Your task to perform on an android device: move an email to a new category in the gmail app Image 0: 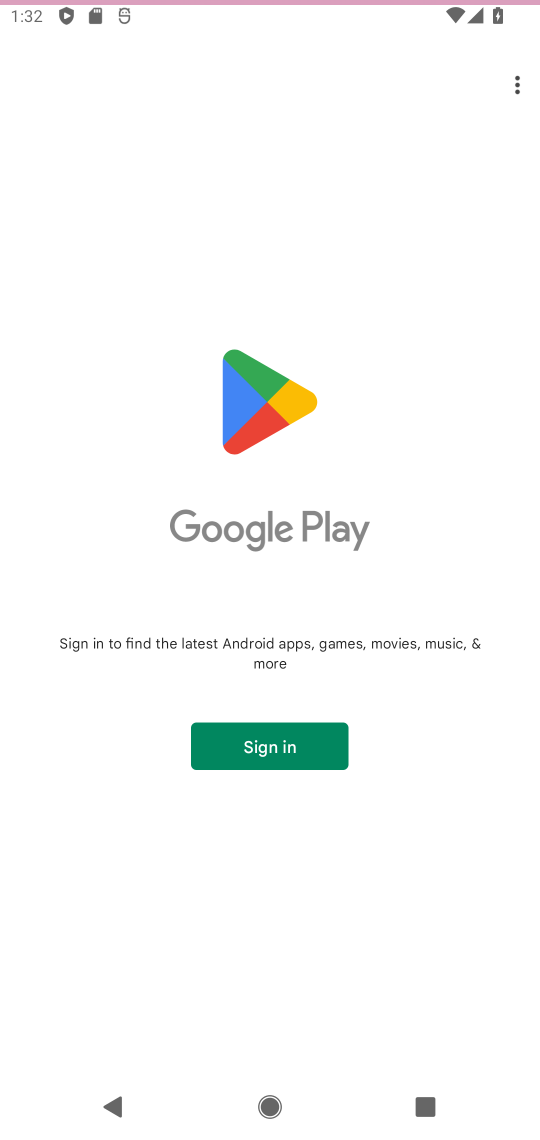
Step 0: press home button
Your task to perform on an android device: move an email to a new category in the gmail app Image 1: 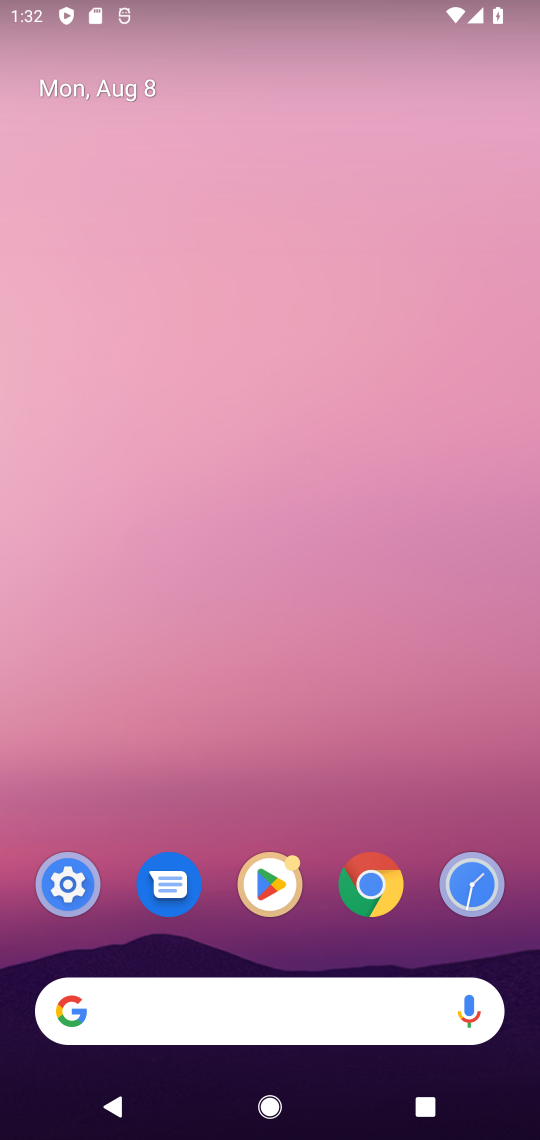
Step 1: click (266, 876)
Your task to perform on an android device: move an email to a new category in the gmail app Image 2: 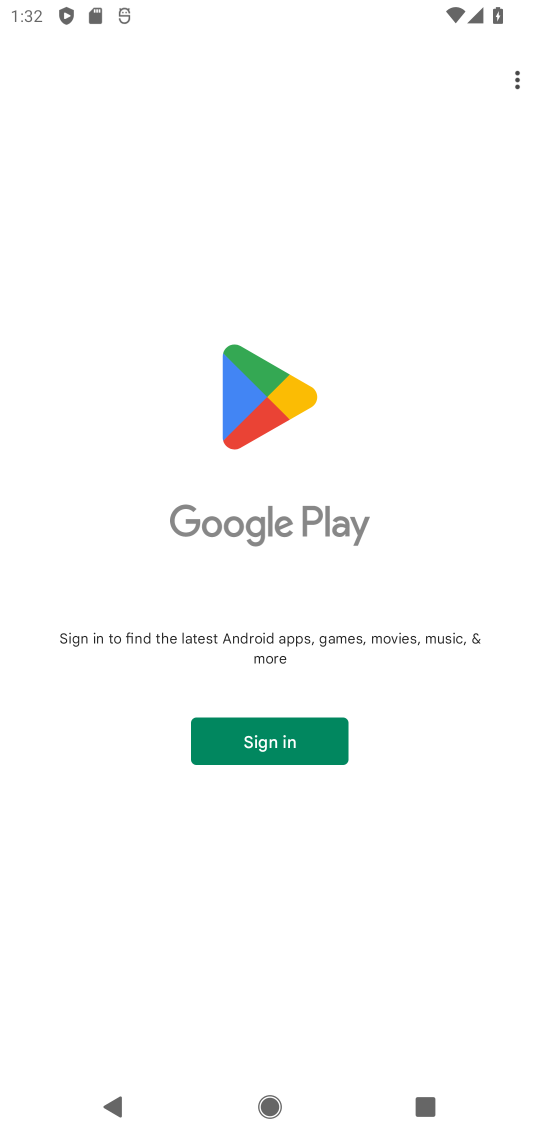
Step 2: press back button
Your task to perform on an android device: move an email to a new category in the gmail app Image 3: 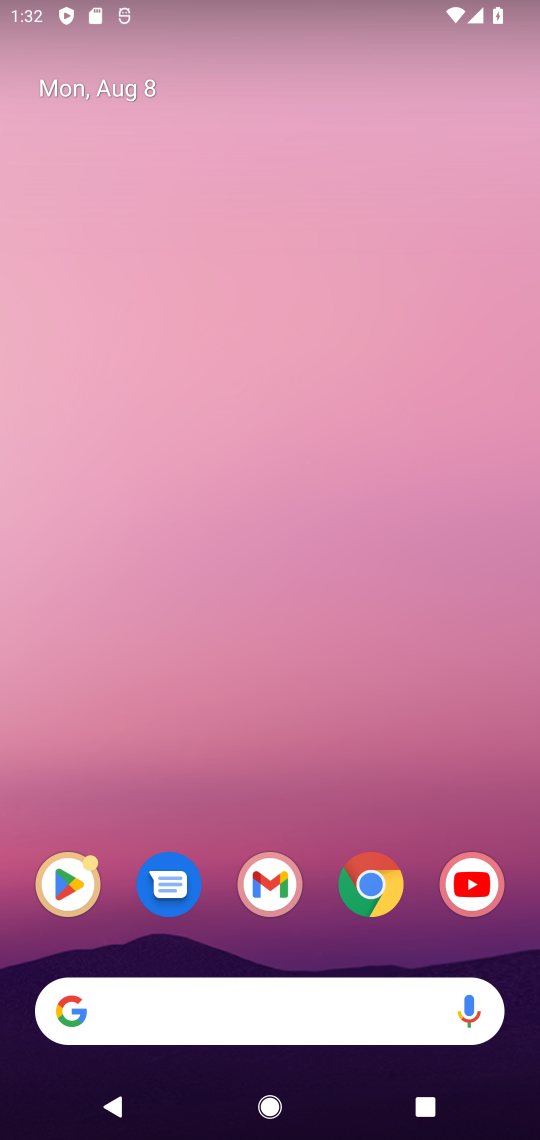
Step 3: click (257, 886)
Your task to perform on an android device: move an email to a new category in the gmail app Image 4: 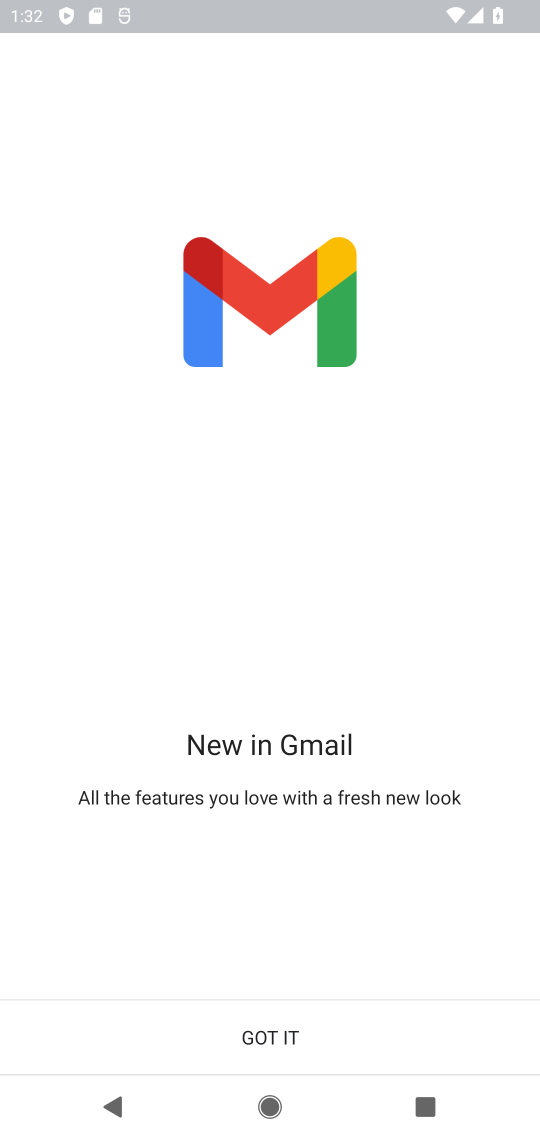
Step 4: click (255, 1019)
Your task to perform on an android device: move an email to a new category in the gmail app Image 5: 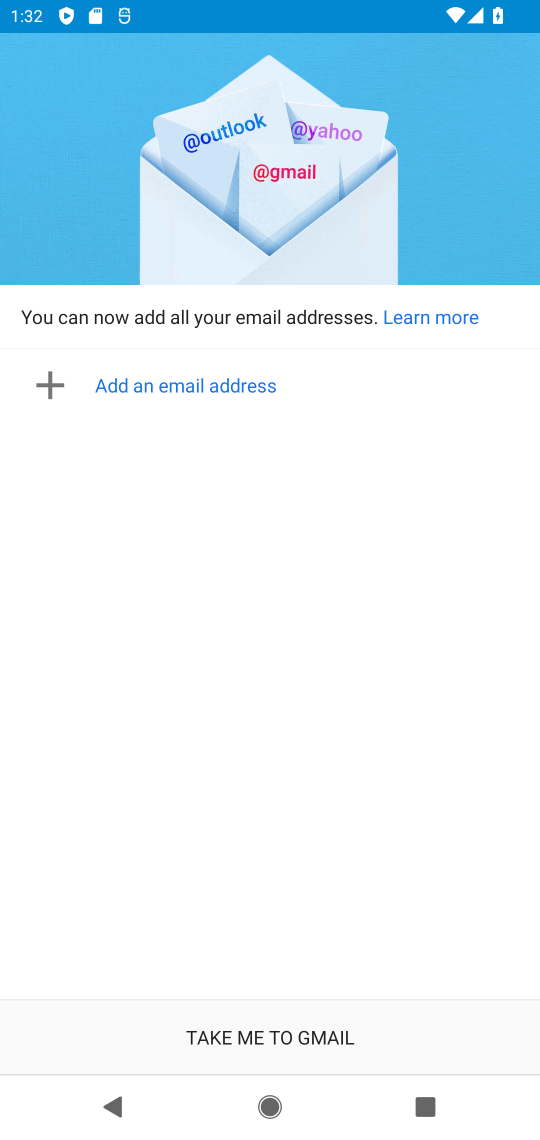
Step 5: click (255, 1019)
Your task to perform on an android device: move an email to a new category in the gmail app Image 6: 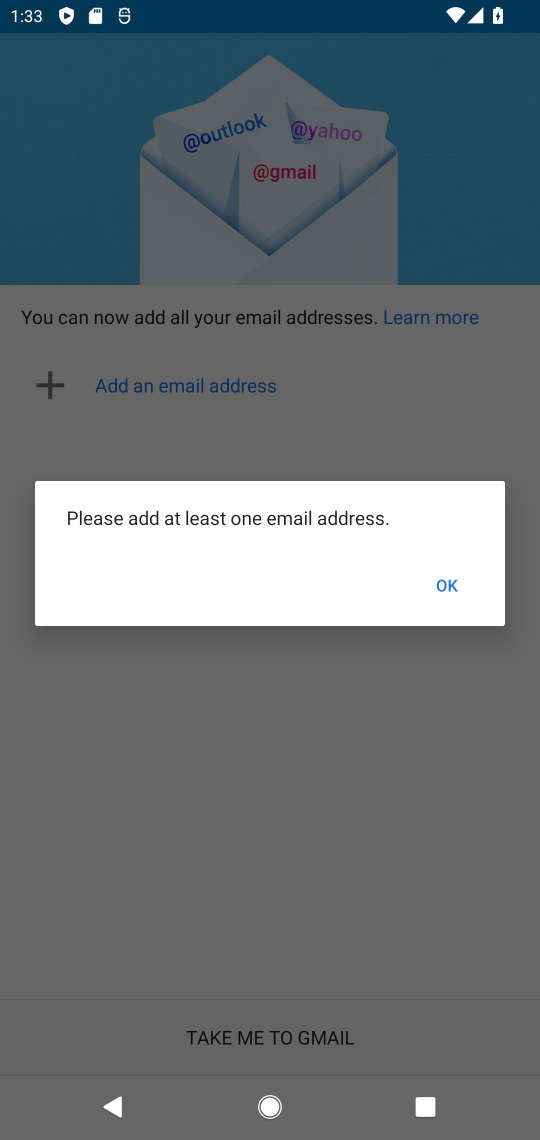
Step 6: click (445, 584)
Your task to perform on an android device: move an email to a new category in the gmail app Image 7: 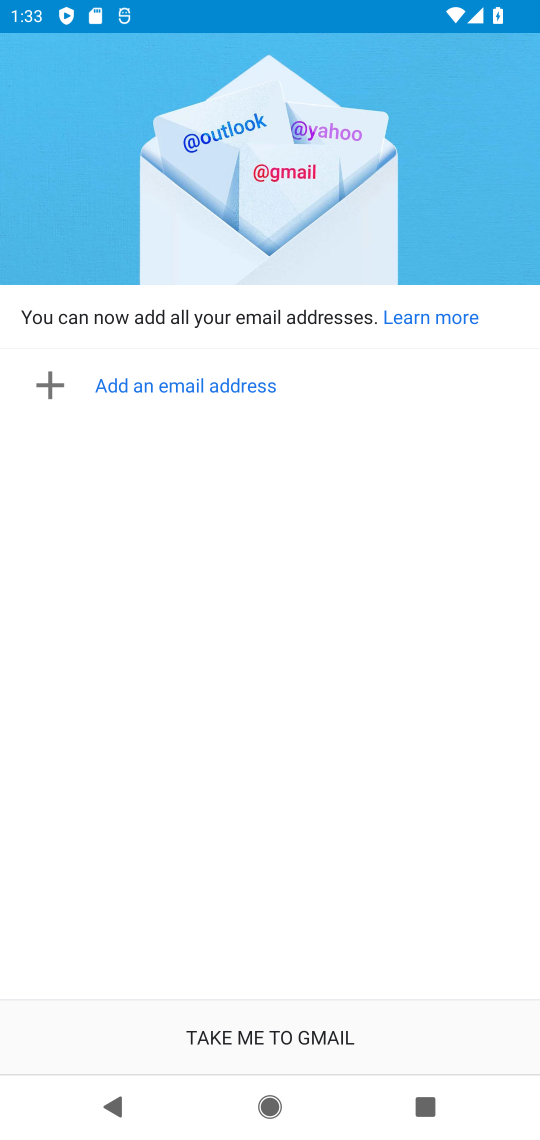
Step 7: task complete